Your task to perform on an android device: Open the calendar and show me this week's events? Image 0: 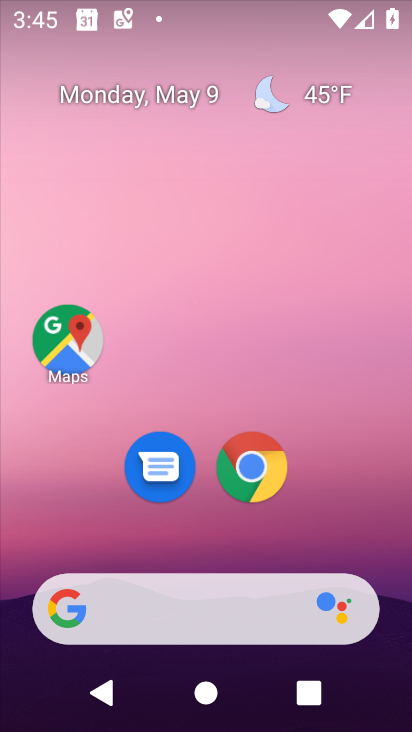
Step 0: drag from (343, 525) to (403, 190)
Your task to perform on an android device: Open the calendar and show me this week's events? Image 1: 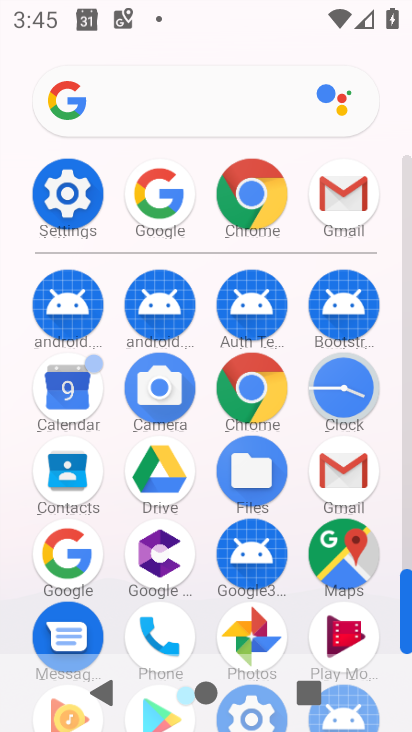
Step 1: drag from (304, 584) to (316, 405)
Your task to perform on an android device: Open the calendar and show me this week's events? Image 2: 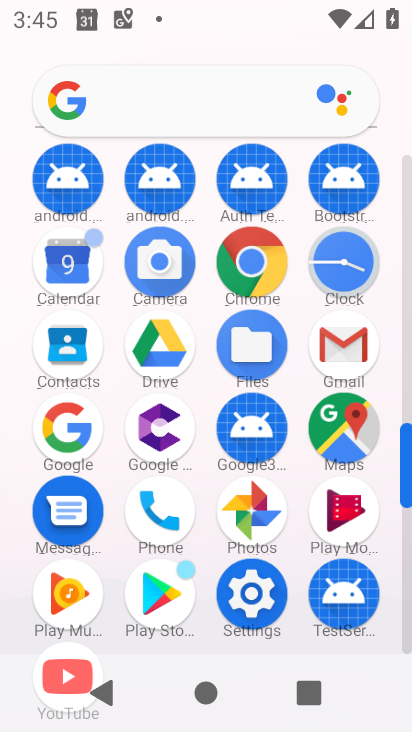
Step 2: drag from (316, 225) to (345, 400)
Your task to perform on an android device: Open the calendar and show me this week's events? Image 3: 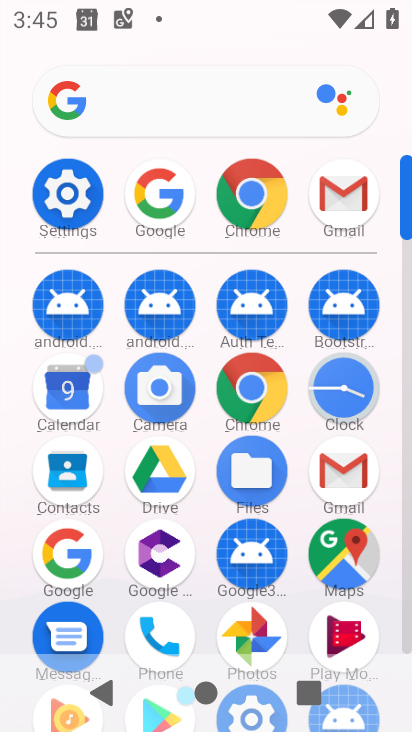
Step 3: click (62, 387)
Your task to perform on an android device: Open the calendar and show me this week's events? Image 4: 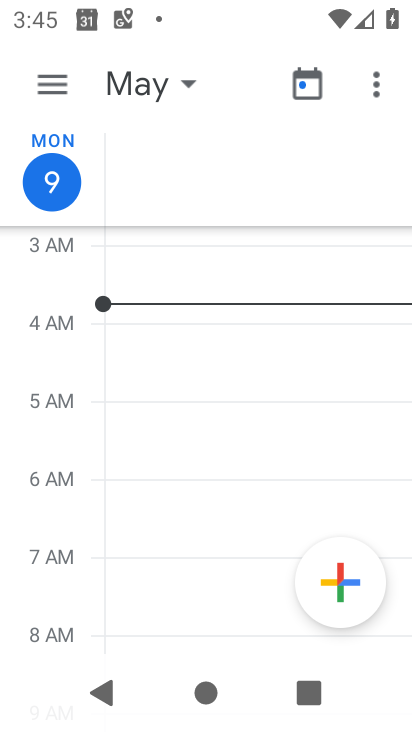
Step 4: click (135, 92)
Your task to perform on an android device: Open the calendar and show me this week's events? Image 5: 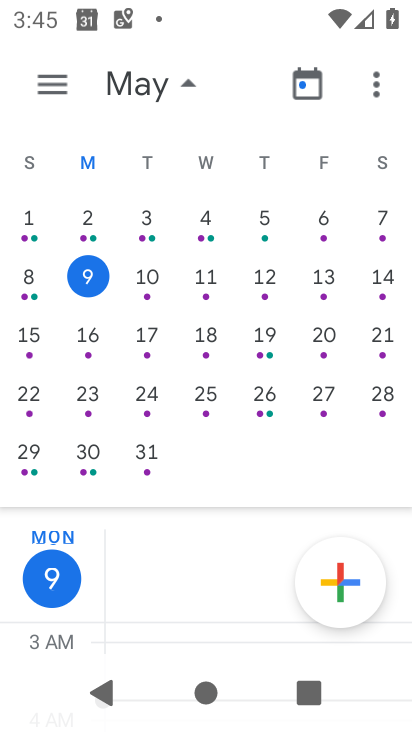
Step 5: click (164, 279)
Your task to perform on an android device: Open the calendar and show me this week's events? Image 6: 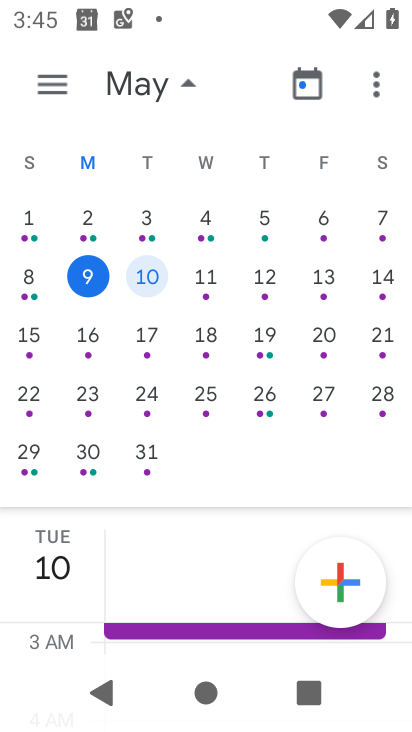
Step 6: click (203, 284)
Your task to perform on an android device: Open the calendar and show me this week's events? Image 7: 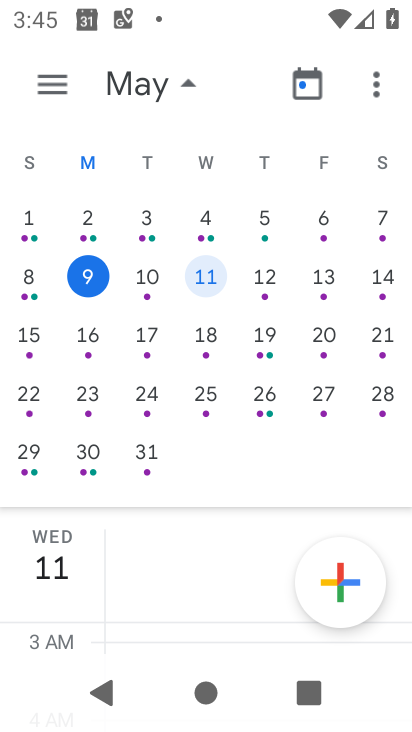
Step 7: click (234, 289)
Your task to perform on an android device: Open the calendar and show me this week's events? Image 8: 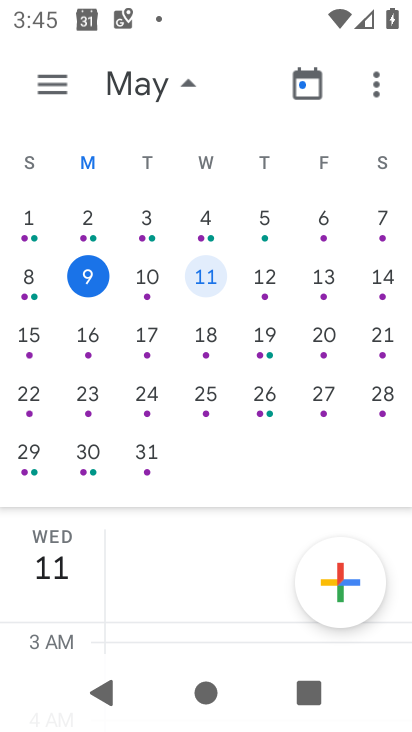
Step 8: click (273, 297)
Your task to perform on an android device: Open the calendar and show me this week's events? Image 9: 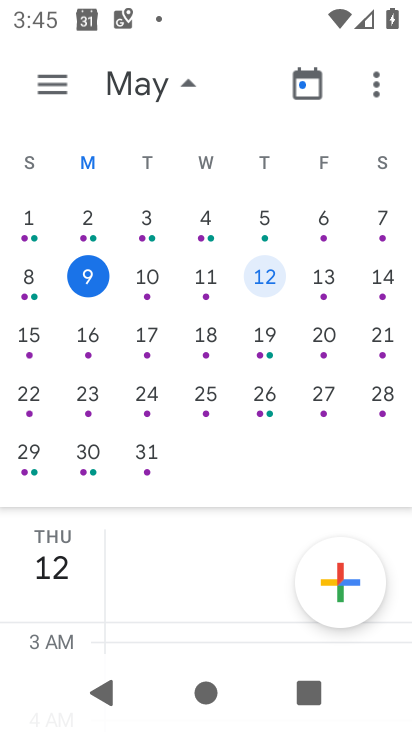
Step 9: click (325, 284)
Your task to perform on an android device: Open the calendar and show me this week's events? Image 10: 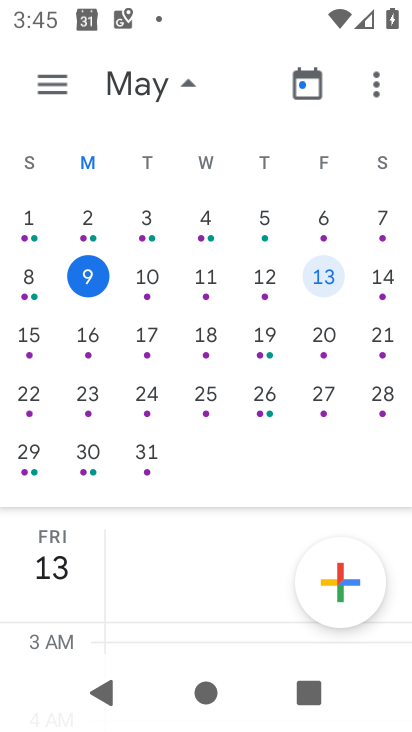
Step 10: click (392, 304)
Your task to perform on an android device: Open the calendar and show me this week's events? Image 11: 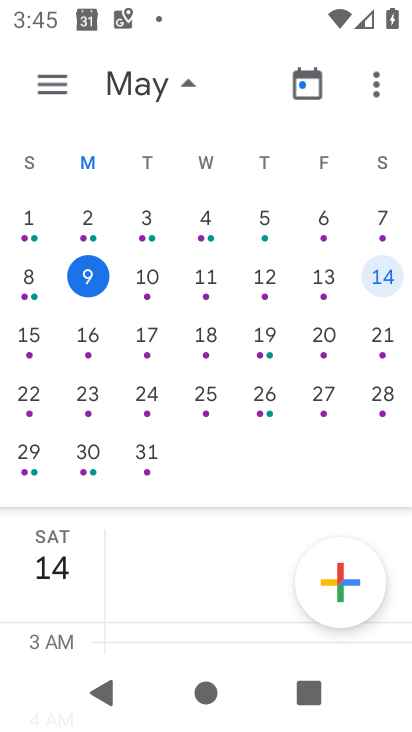
Step 11: task complete